Your task to perform on an android device: Search for 3d printer on AliExpress Image 0: 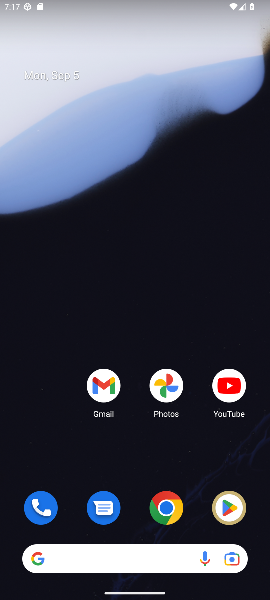
Step 0: click (165, 511)
Your task to perform on an android device: Search for 3d printer on AliExpress Image 1: 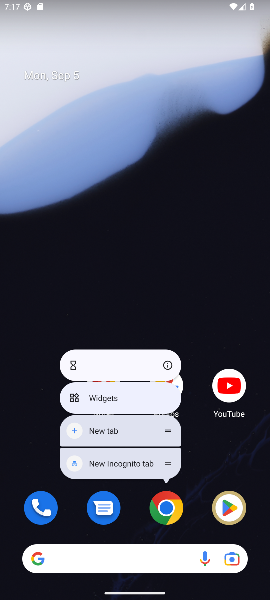
Step 1: click (165, 511)
Your task to perform on an android device: Search for 3d printer on AliExpress Image 2: 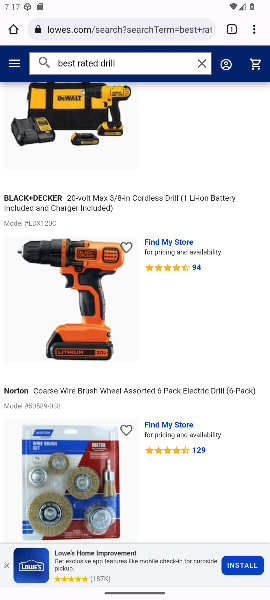
Step 2: click (125, 31)
Your task to perform on an android device: Search for 3d printer on AliExpress Image 3: 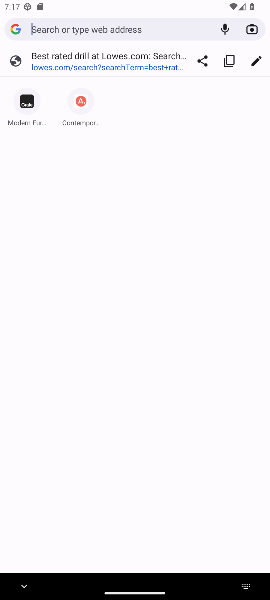
Step 3: type "AliExpress"
Your task to perform on an android device: Search for 3d printer on AliExpress Image 4: 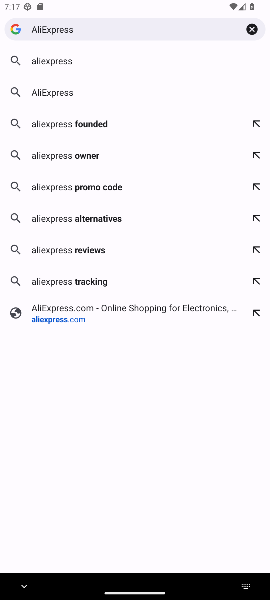
Step 4: click (59, 89)
Your task to perform on an android device: Search for 3d printer on AliExpress Image 5: 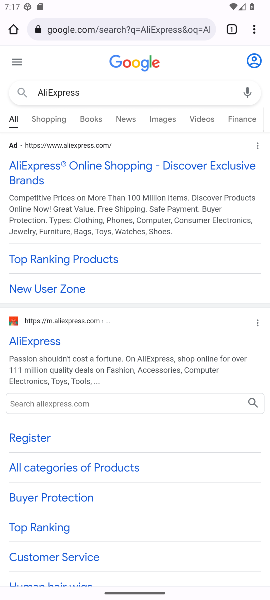
Step 5: click (40, 343)
Your task to perform on an android device: Search for 3d printer on AliExpress Image 6: 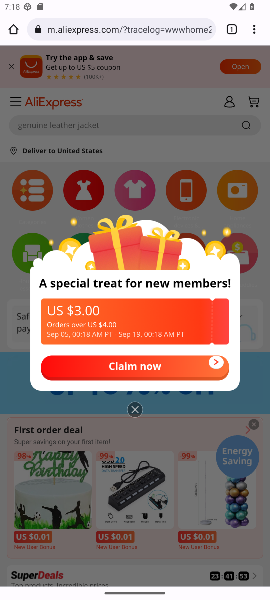
Step 6: click (134, 411)
Your task to perform on an android device: Search for 3d printer on AliExpress Image 7: 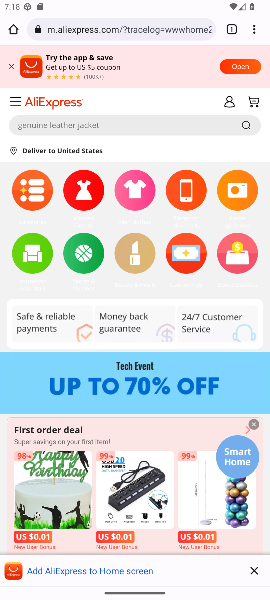
Step 7: click (54, 130)
Your task to perform on an android device: Search for 3d printer on AliExpress Image 8: 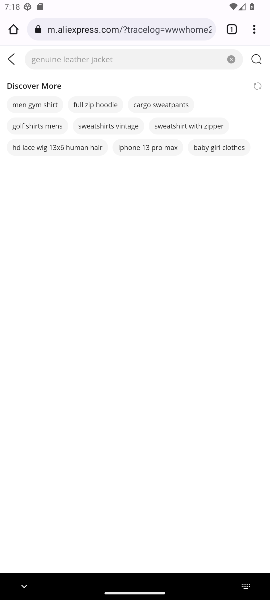
Step 8: type "3d printer"
Your task to perform on an android device: Search for 3d printer on AliExpress Image 9: 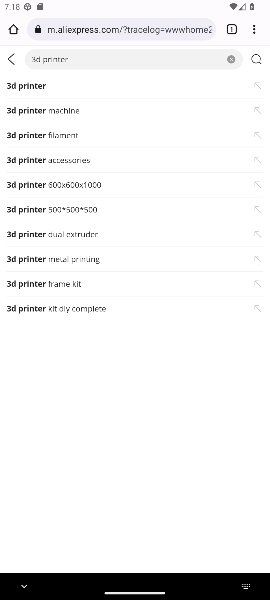
Step 9: click (32, 91)
Your task to perform on an android device: Search for 3d printer on AliExpress Image 10: 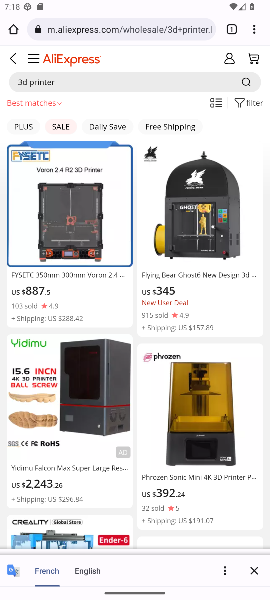
Step 10: task complete